Your task to perform on an android device: Open Yahoo.com Image 0: 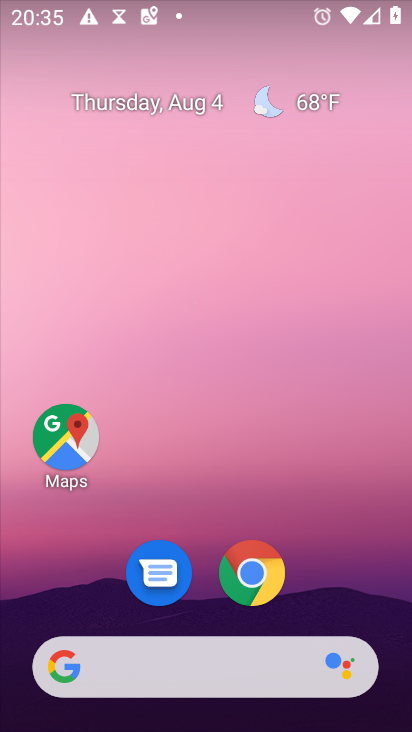
Step 0: click (245, 595)
Your task to perform on an android device: Open Yahoo.com Image 1: 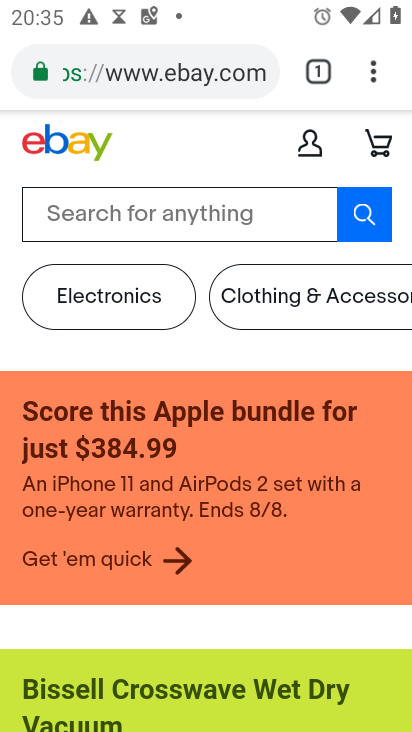
Step 1: click (244, 77)
Your task to perform on an android device: Open Yahoo.com Image 2: 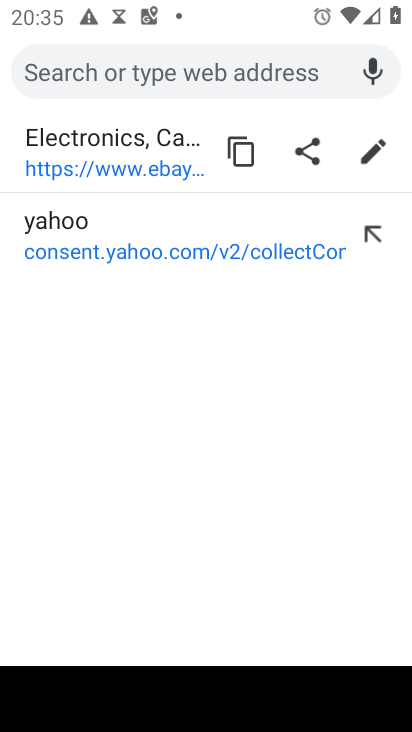
Step 2: type "yahoo.com"
Your task to perform on an android device: Open Yahoo.com Image 3: 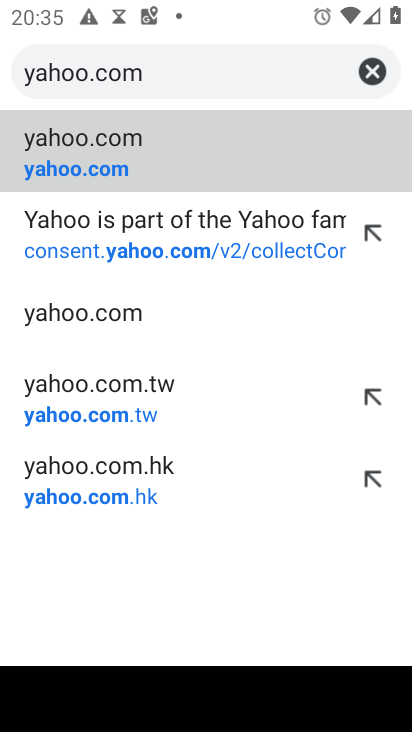
Step 3: click (104, 140)
Your task to perform on an android device: Open Yahoo.com Image 4: 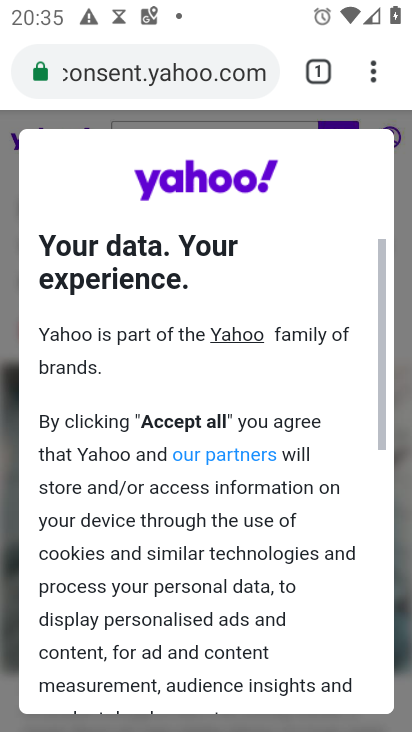
Step 4: task complete